Your task to perform on an android device: Clear the shopping cart on newegg. Search for alienware area 51 on newegg, select the first entry, and add it to the cart. Image 0: 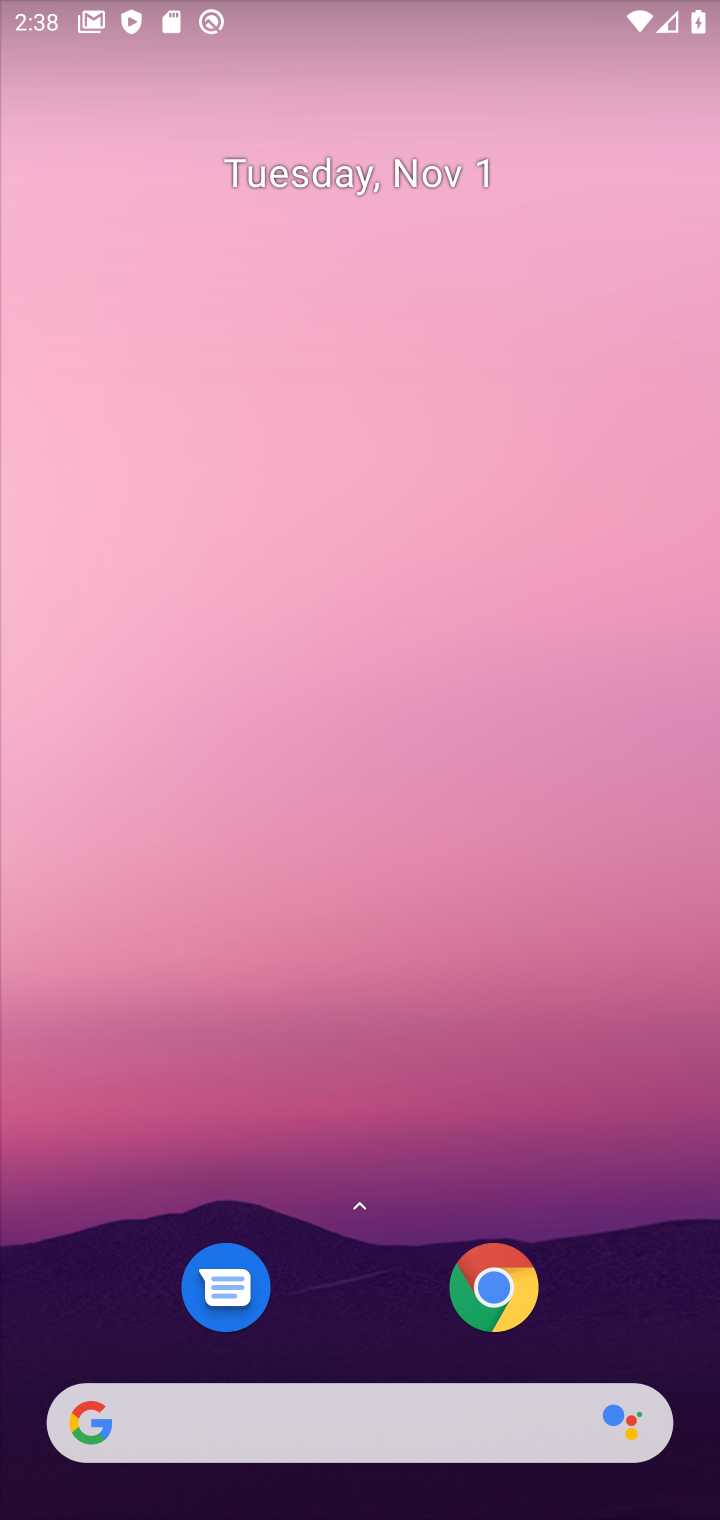
Step 0: press home button
Your task to perform on an android device: Clear the shopping cart on newegg. Search for alienware area 51 on newegg, select the first entry, and add it to the cart. Image 1: 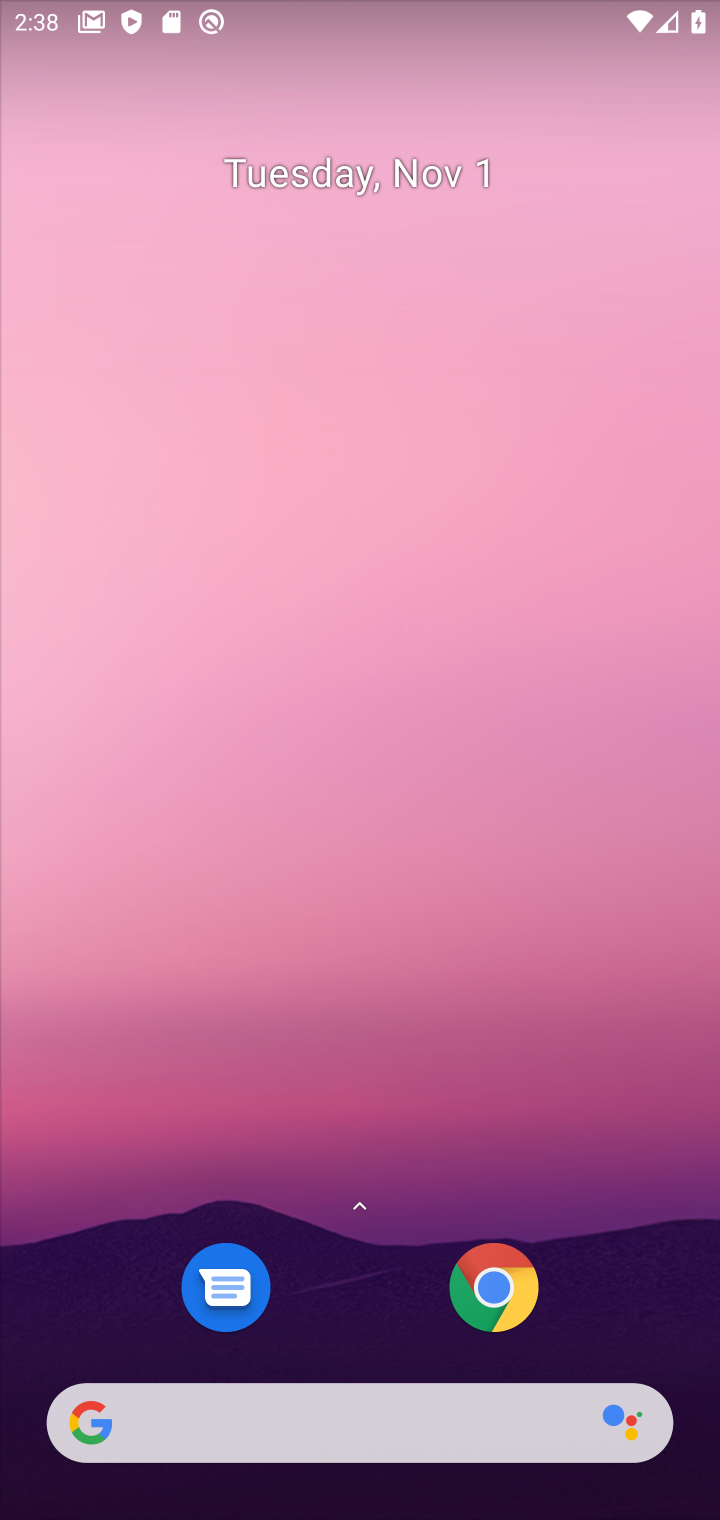
Step 1: drag from (373, 1268) to (375, 181)
Your task to perform on an android device: Clear the shopping cart on newegg. Search for alienware area 51 on newegg, select the first entry, and add it to the cart. Image 2: 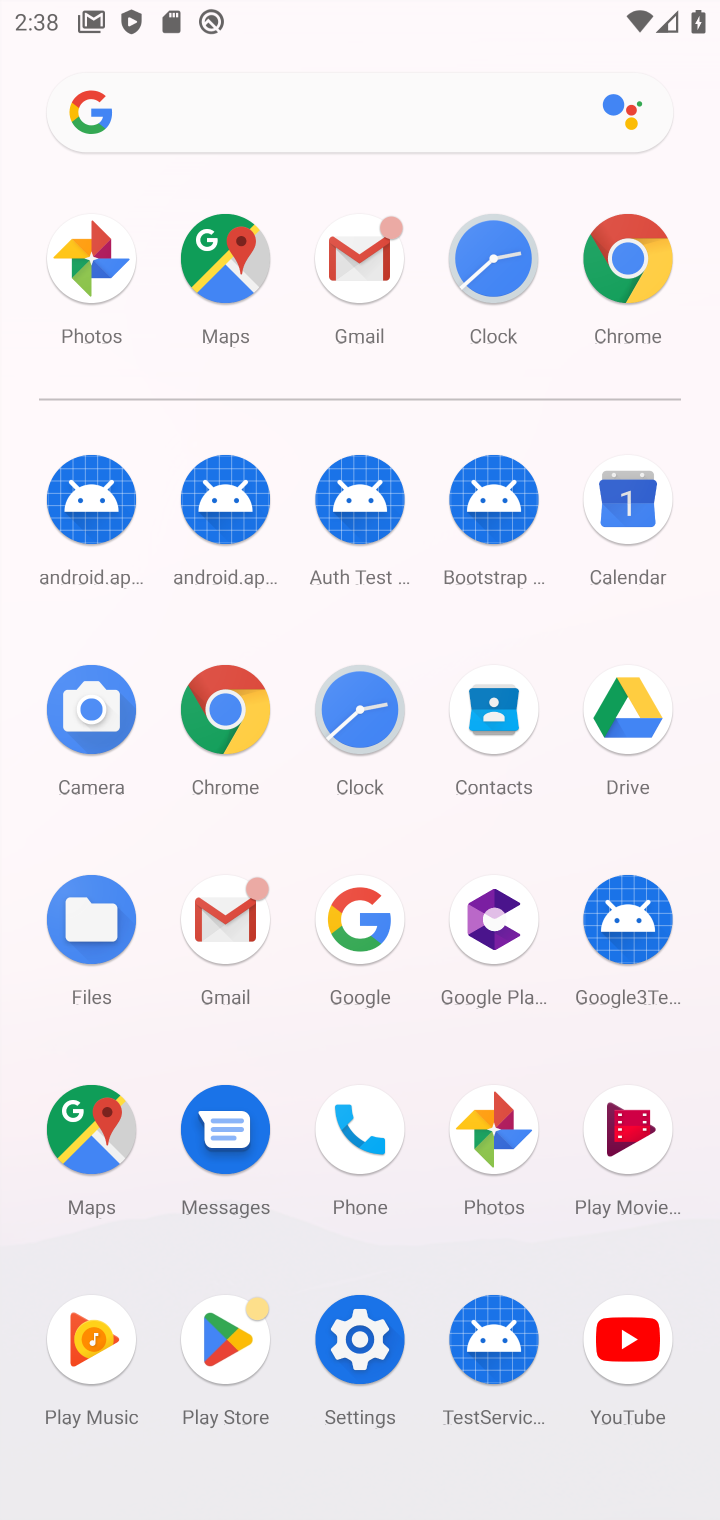
Step 2: click (232, 696)
Your task to perform on an android device: Clear the shopping cart on newegg. Search for alienware area 51 on newegg, select the first entry, and add it to the cart. Image 3: 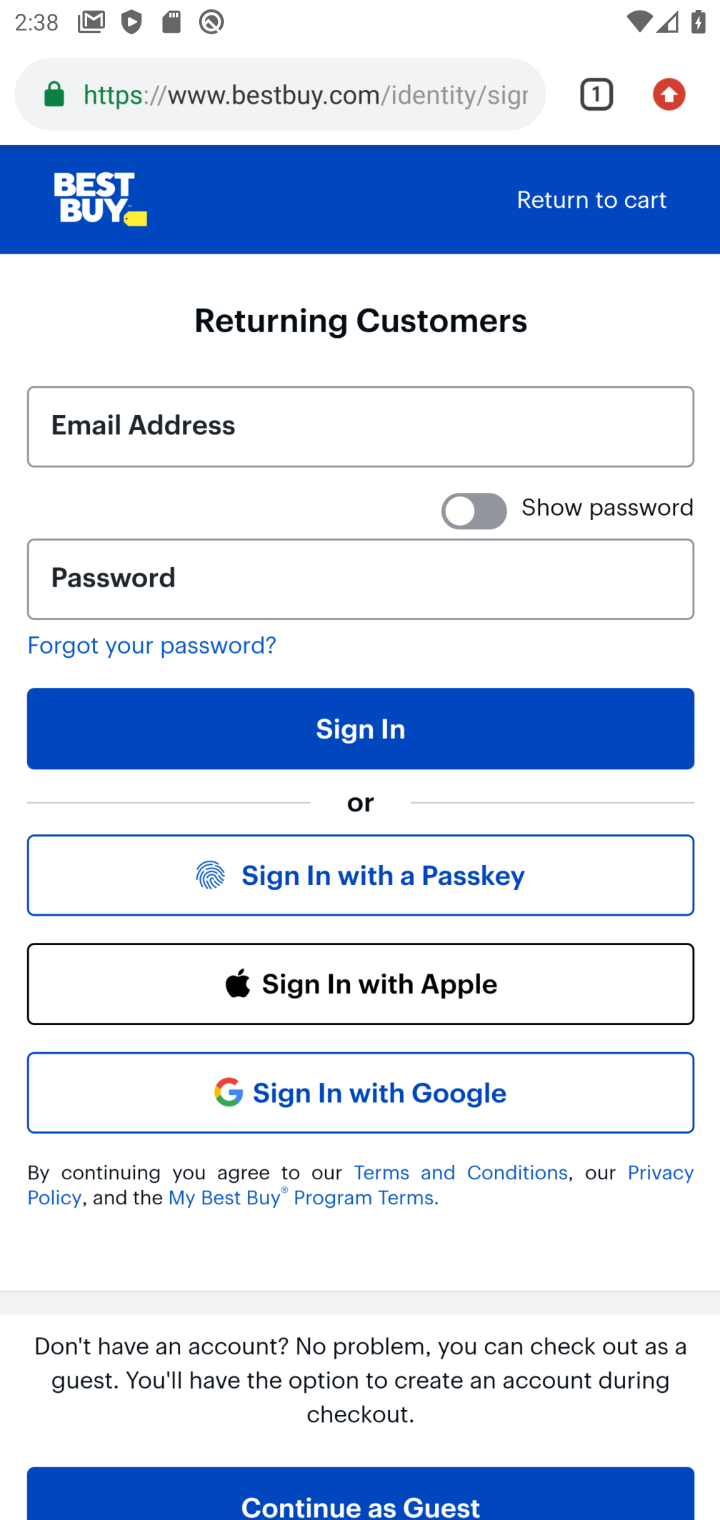
Step 3: click (341, 98)
Your task to perform on an android device: Clear the shopping cart on newegg. Search for alienware area 51 on newegg, select the first entry, and add it to the cart. Image 4: 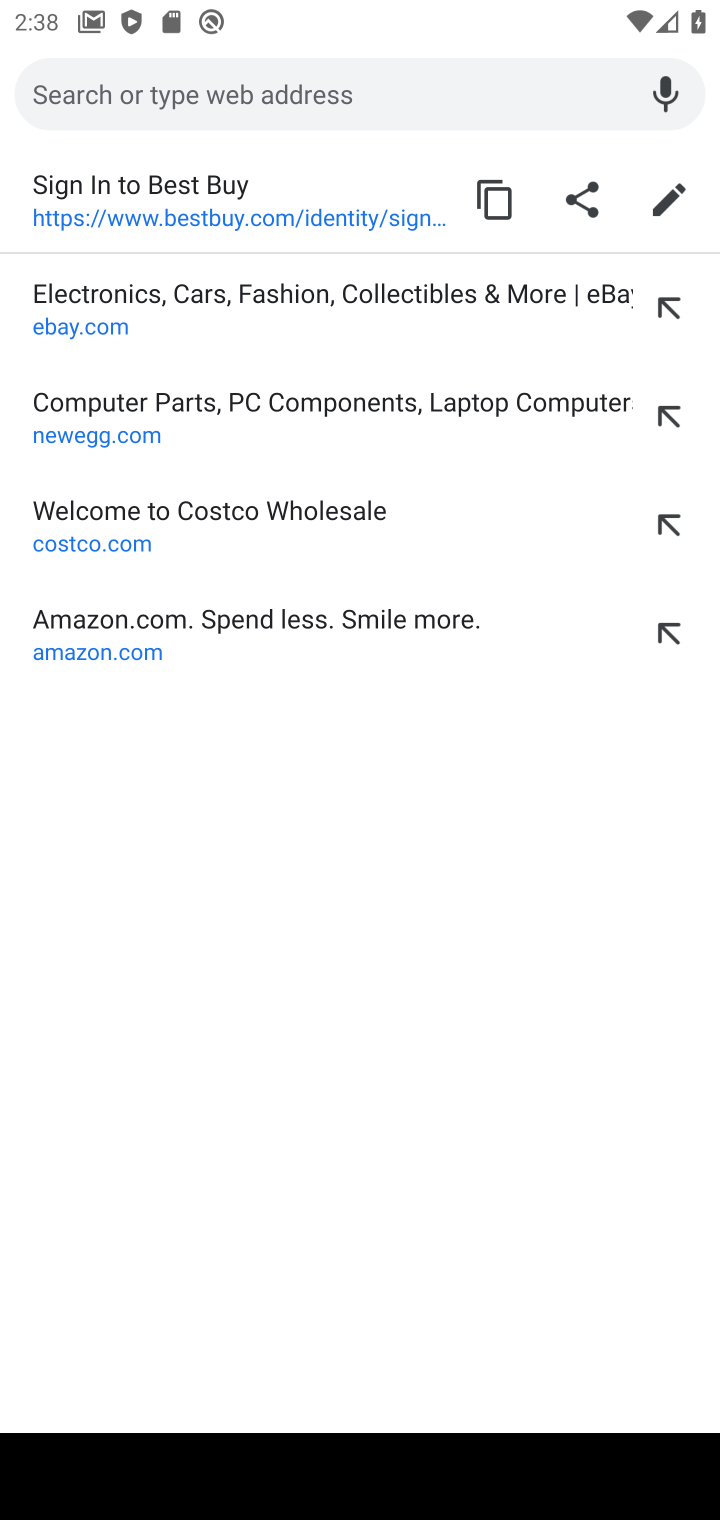
Step 4: type "newegg.com"
Your task to perform on an android device: Clear the shopping cart on newegg. Search for alienware area 51 on newegg, select the first entry, and add it to the cart. Image 5: 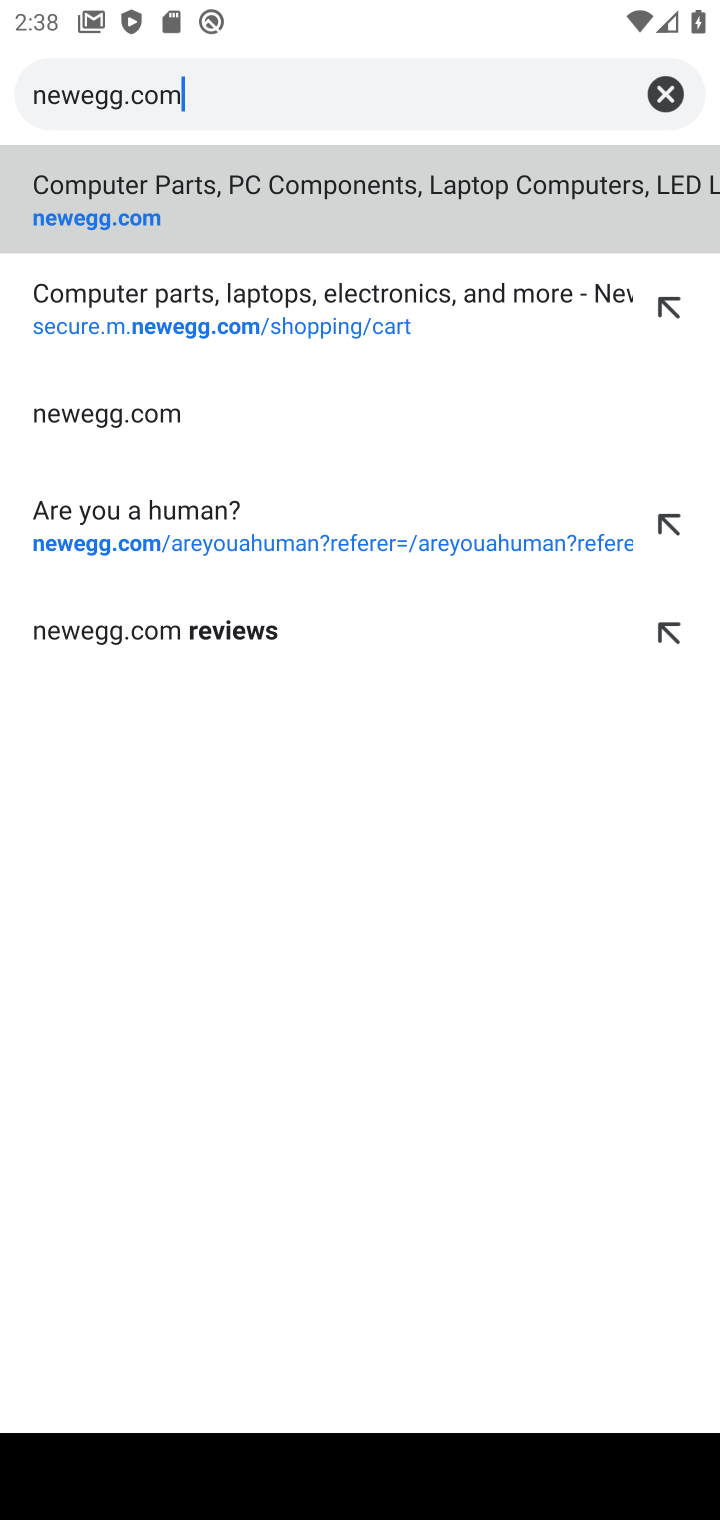
Step 5: press enter
Your task to perform on an android device: Clear the shopping cart on newegg. Search for alienware area 51 on newegg, select the first entry, and add it to the cart. Image 6: 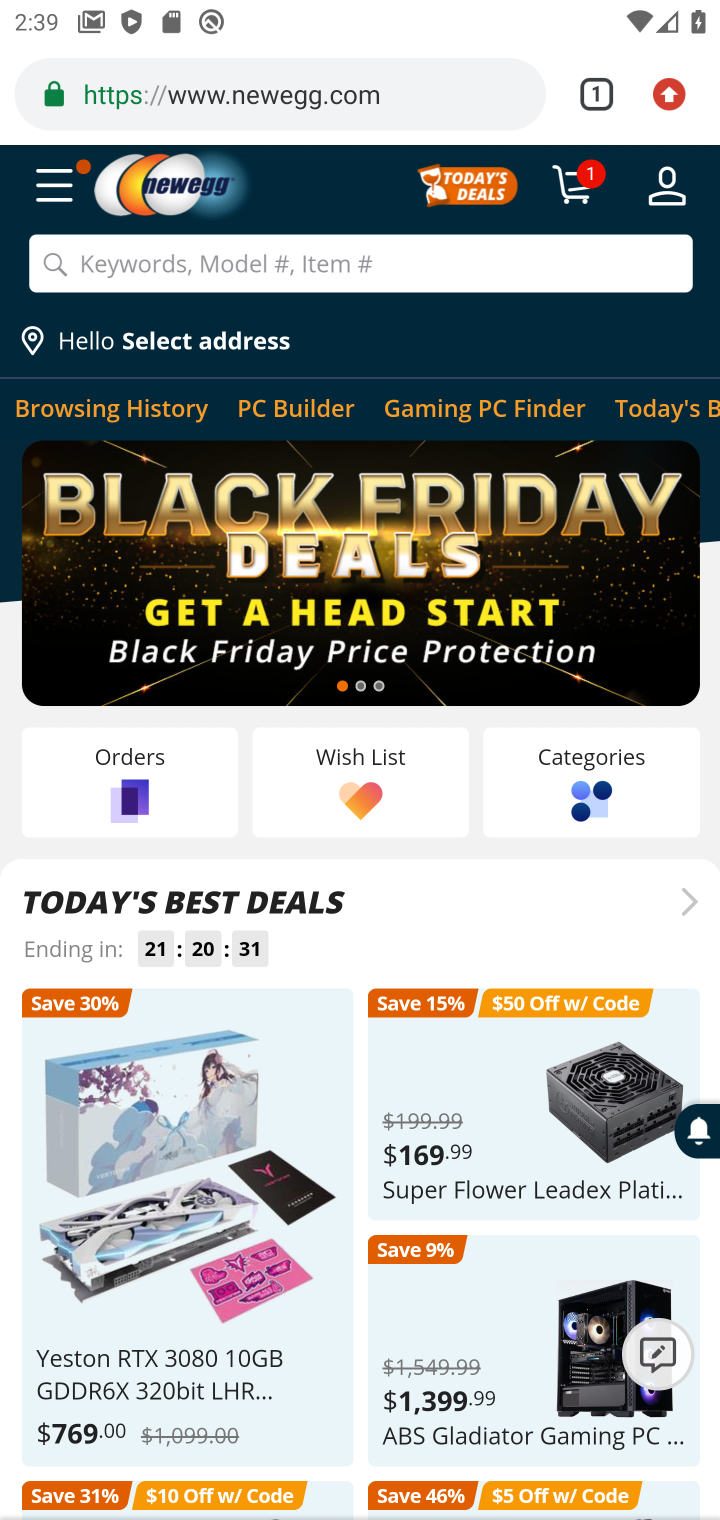
Step 6: click (595, 177)
Your task to perform on an android device: Clear the shopping cart on newegg. Search for alienware area 51 on newegg, select the first entry, and add it to the cart. Image 7: 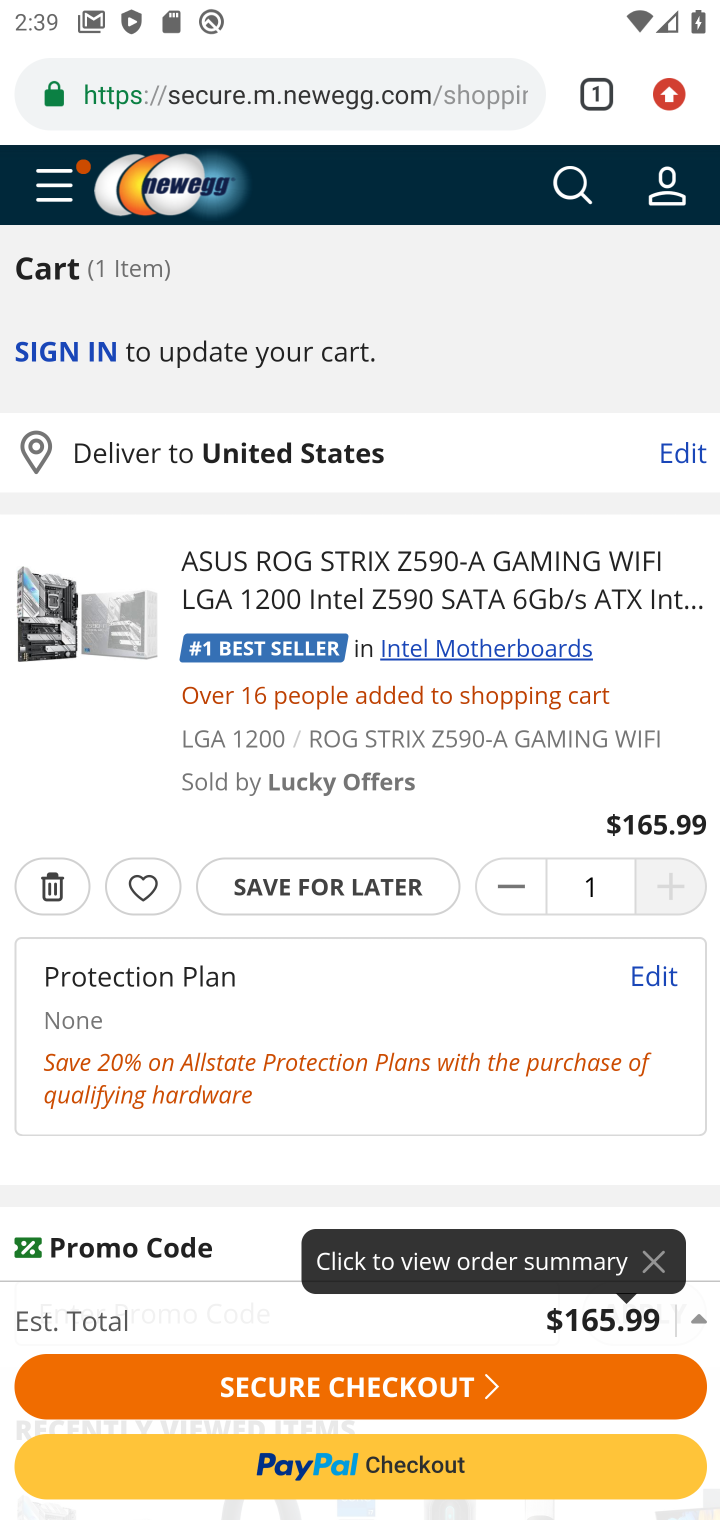
Step 7: click (61, 888)
Your task to perform on an android device: Clear the shopping cart on newegg. Search for alienware area 51 on newegg, select the first entry, and add it to the cart. Image 8: 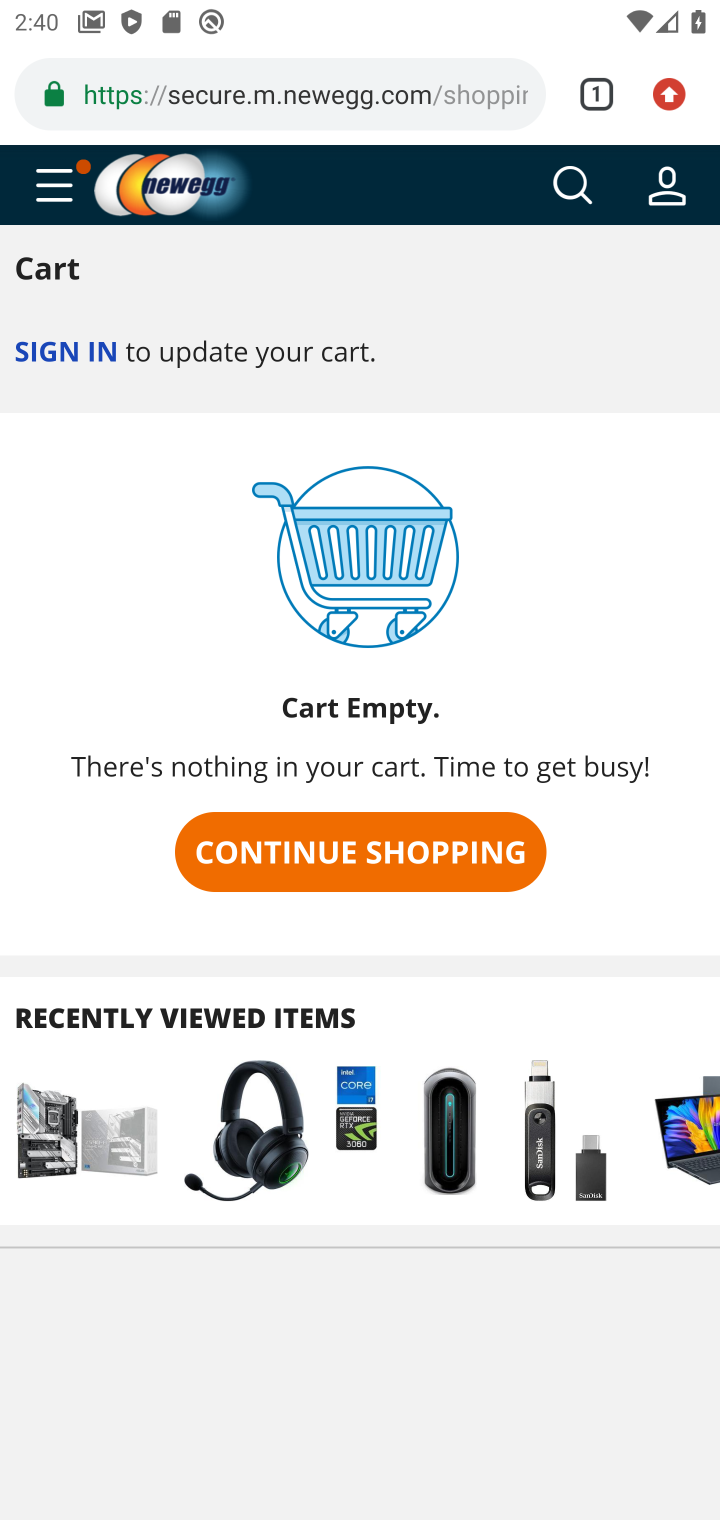
Step 8: click (567, 193)
Your task to perform on an android device: Clear the shopping cart on newegg. Search for alienware area 51 on newegg, select the first entry, and add it to the cart. Image 9: 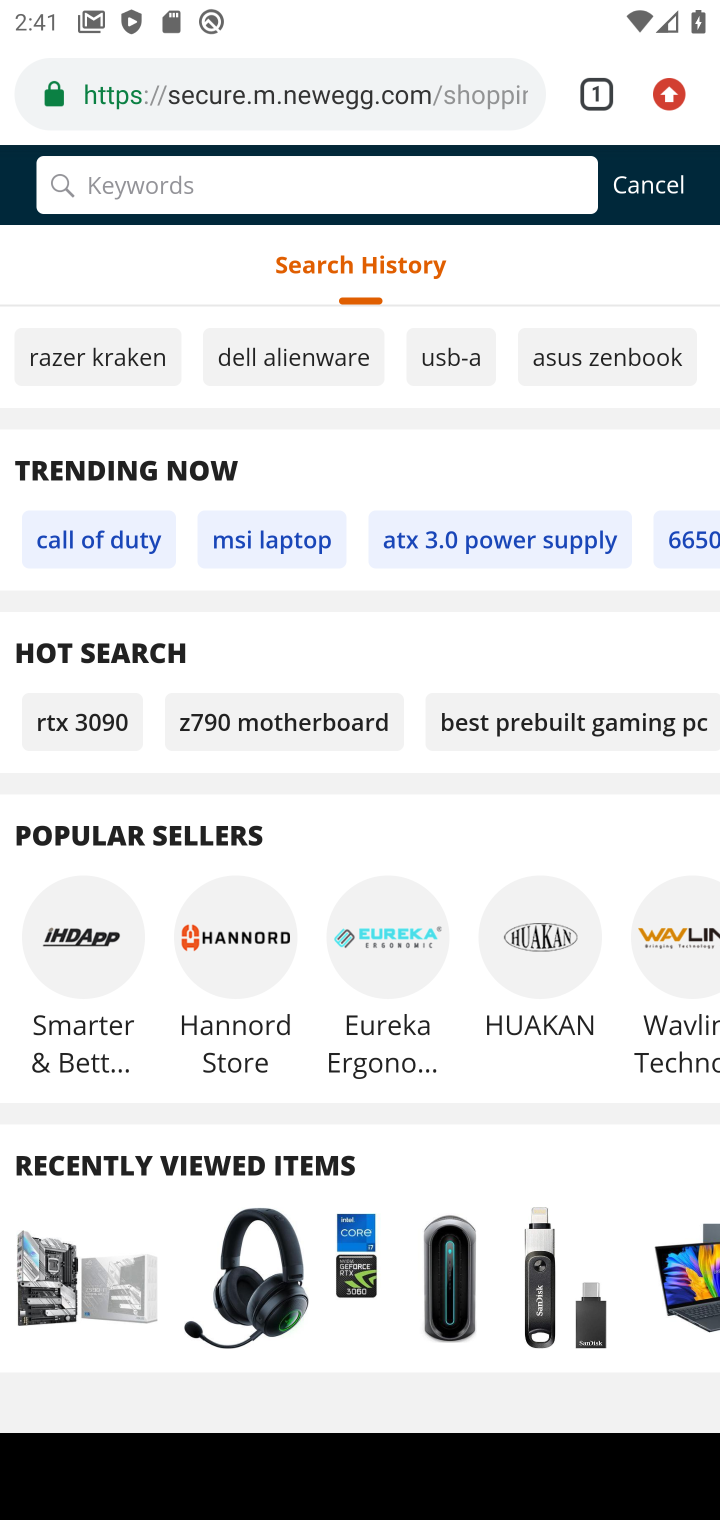
Step 9: type "alienware area 51"
Your task to perform on an android device: Clear the shopping cart on newegg. Search for alienware area 51 on newegg, select the first entry, and add it to the cart. Image 10: 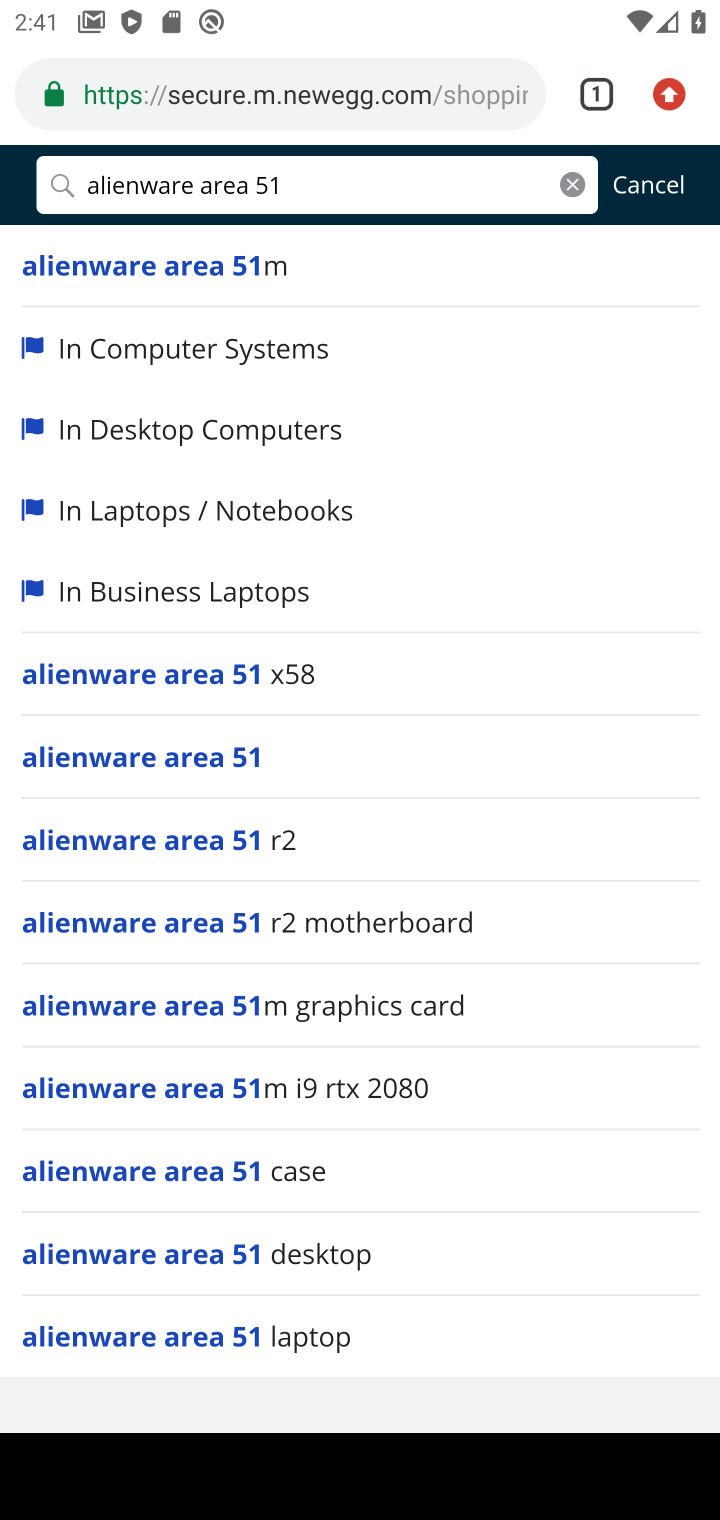
Step 10: press enter
Your task to perform on an android device: Clear the shopping cart on newegg. Search for alienware area 51 on newegg, select the first entry, and add it to the cart. Image 11: 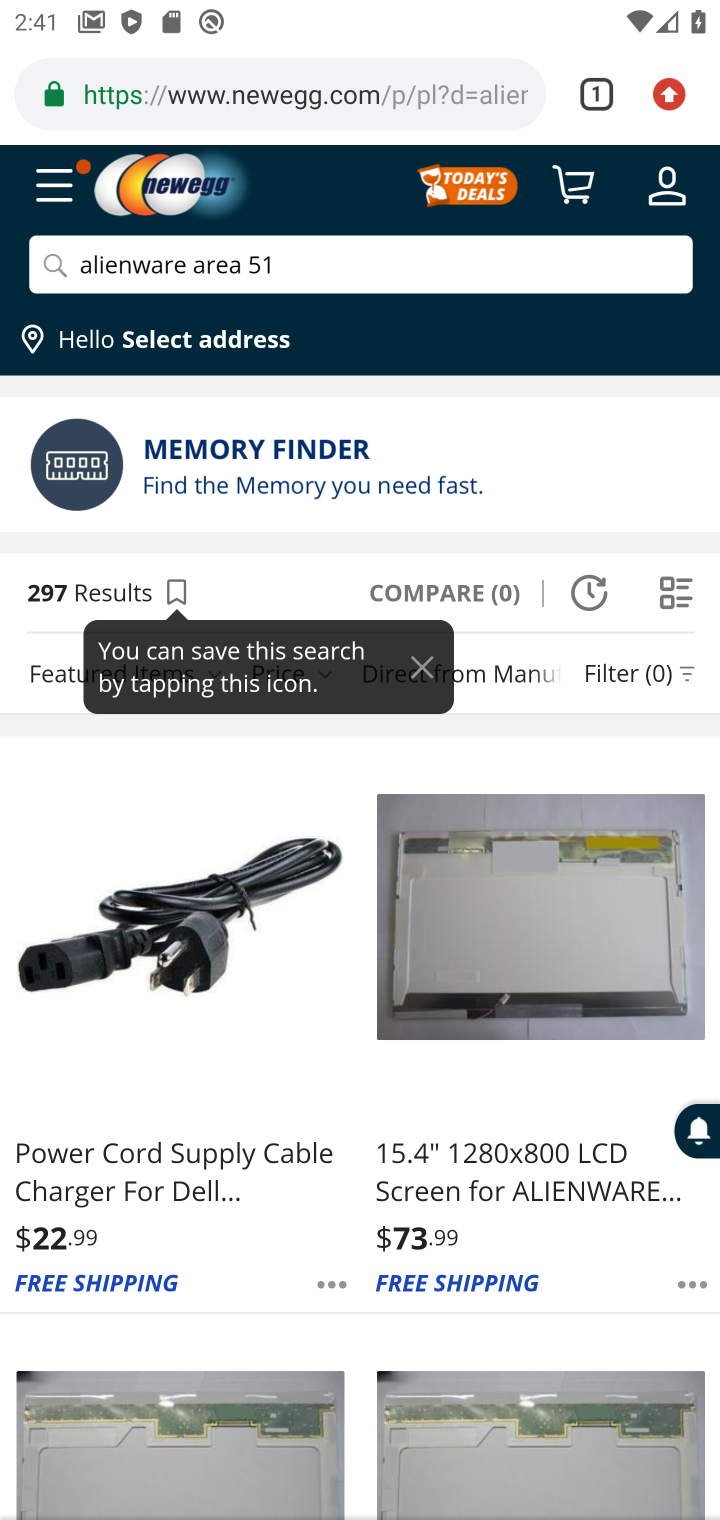
Step 11: task complete